Your task to perform on an android device: all mails in gmail Image 0: 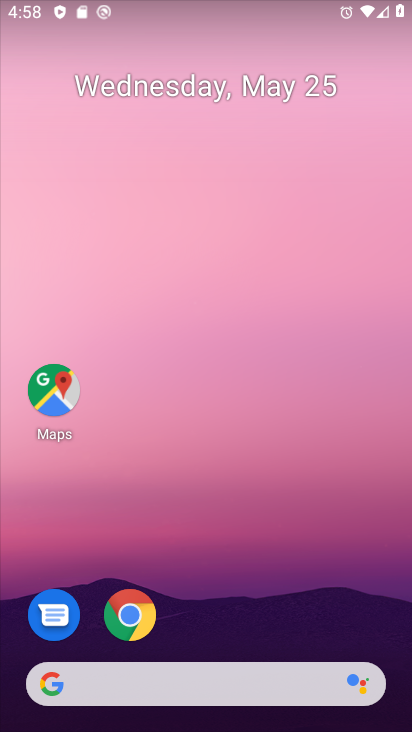
Step 0: drag from (313, 602) to (349, 0)
Your task to perform on an android device: all mails in gmail Image 1: 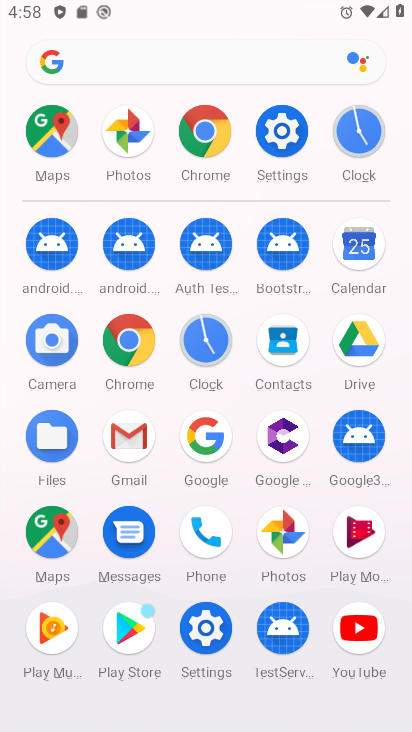
Step 1: click (143, 441)
Your task to perform on an android device: all mails in gmail Image 2: 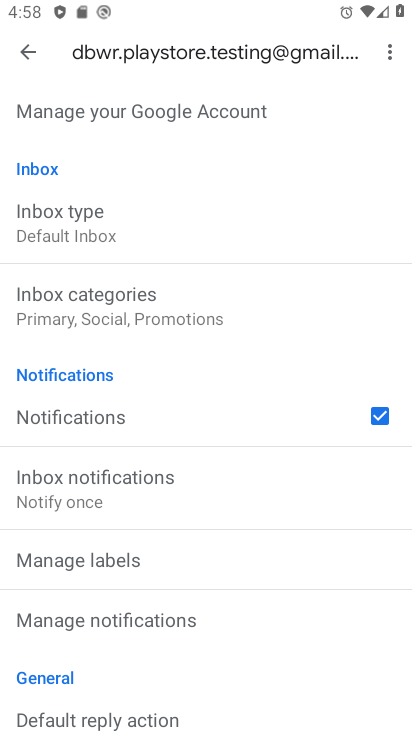
Step 2: click (39, 63)
Your task to perform on an android device: all mails in gmail Image 3: 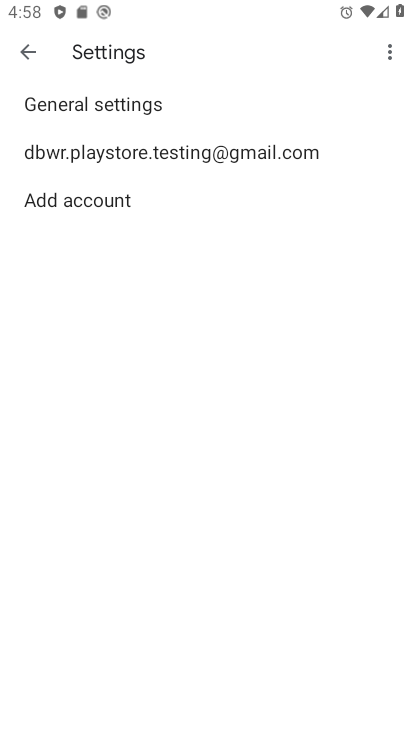
Step 3: click (39, 63)
Your task to perform on an android device: all mails in gmail Image 4: 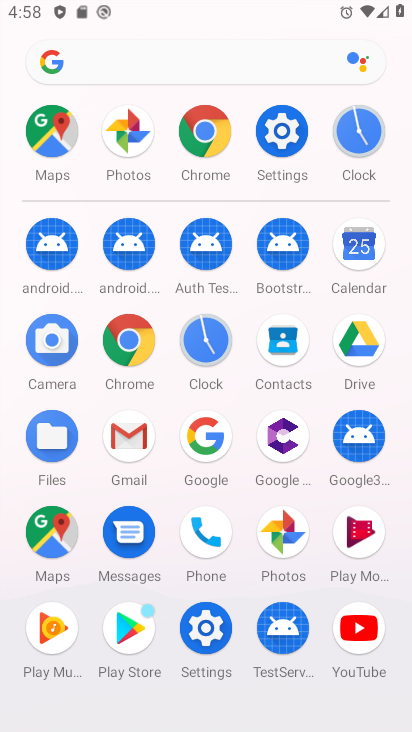
Step 4: click (143, 449)
Your task to perform on an android device: all mails in gmail Image 5: 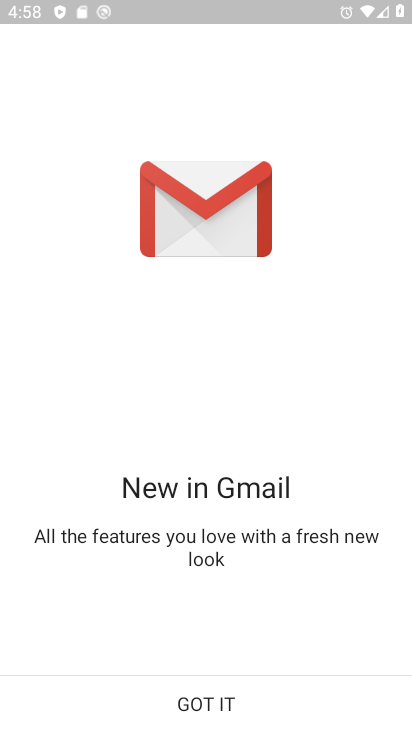
Step 5: click (203, 677)
Your task to perform on an android device: all mails in gmail Image 6: 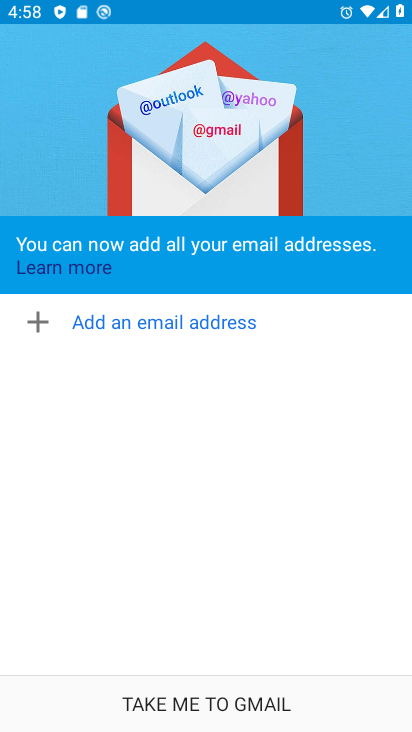
Step 6: click (203, 677)
Your task to perform on an android device: all mails in gmail Image 7: 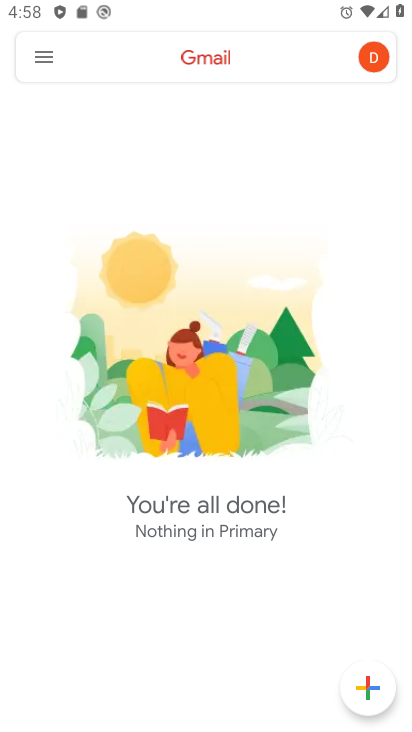
Step 7: click (29, 68)
Your task to perform on an android device: all mails in gmail Image 8: 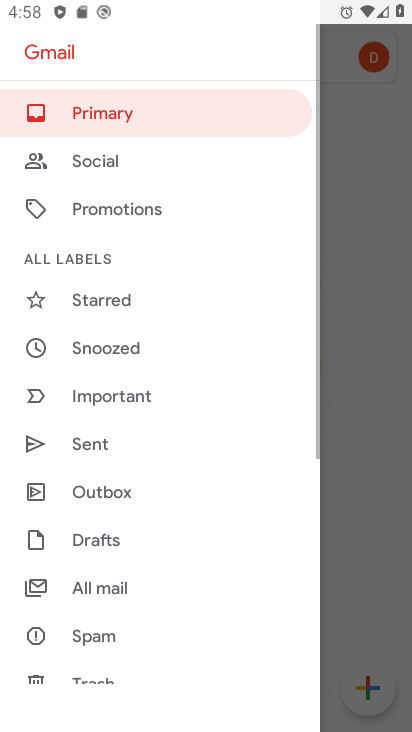
Step 8: drag from (165, 585) to (192, 124)
Your task to perform on an android device: all mails in gmail Image 9: 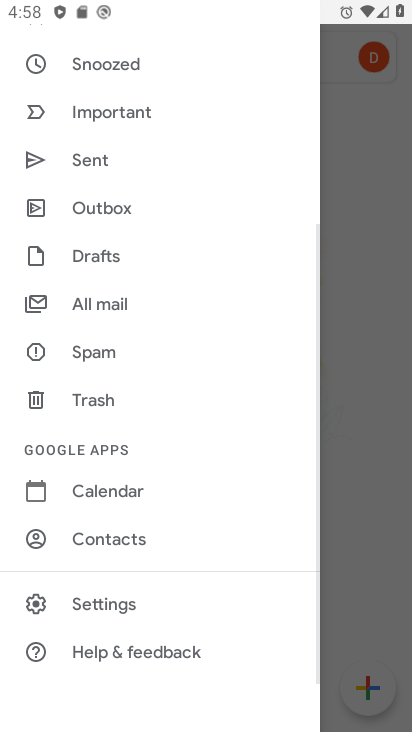
Step 9: click (118, 592)
Your task to perform on an android device: all mails in gmail Image 10: 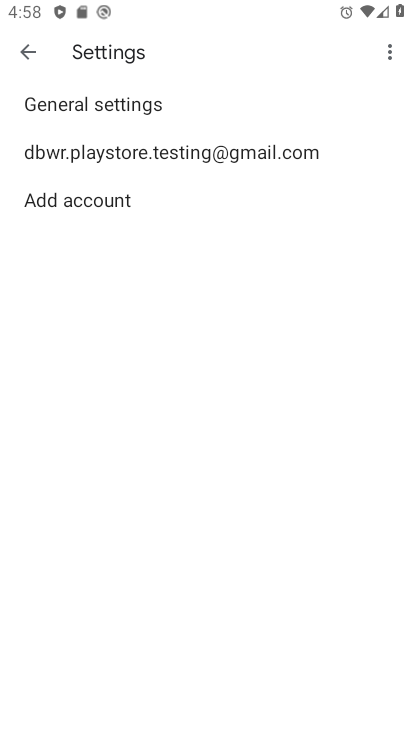
Step 10: click (175, 148)
Your task to perform on an android device: all mails in gmail Image 11: 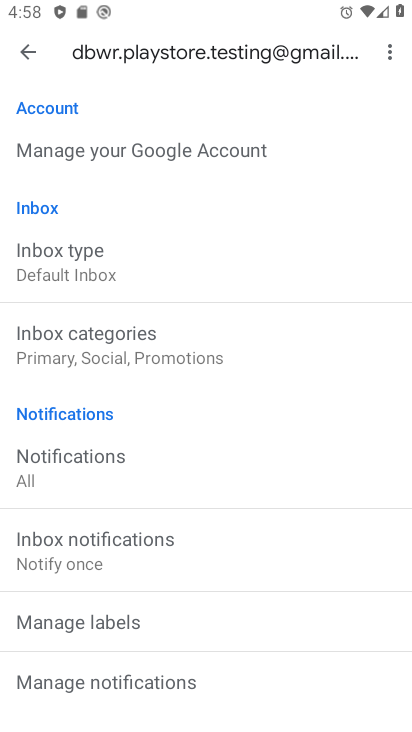
Step 11: click (34, 58)
Your task to perform on an android device: all mails in gmail Image 12: 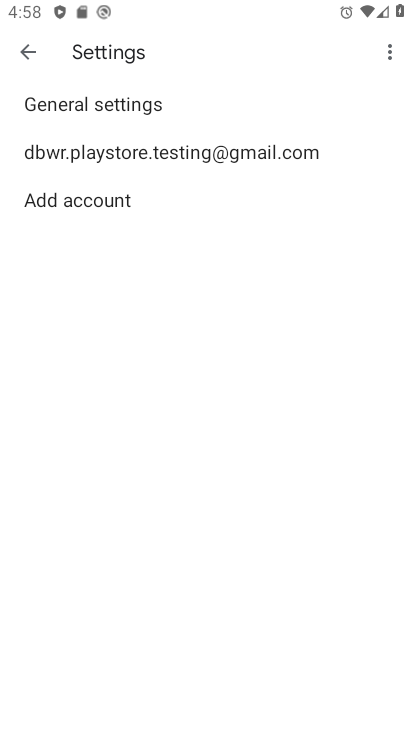
Step 12: click (34, 58)
Your task to perform on an android device: all mails in gmail Image 13: 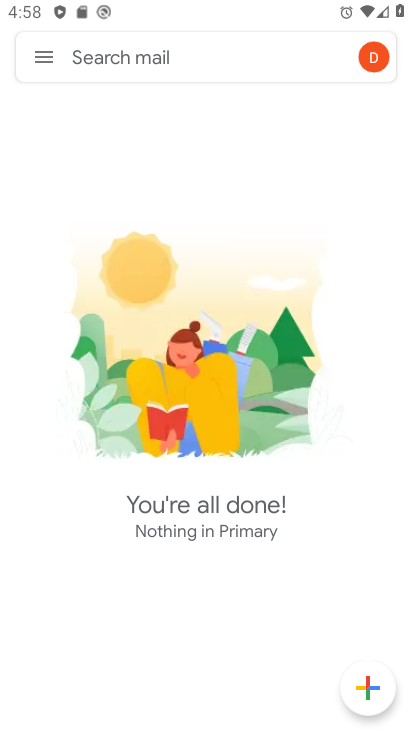
Step 13: click (45, 67)
Your task to perform on an android device: all mails in gmail Image 14: 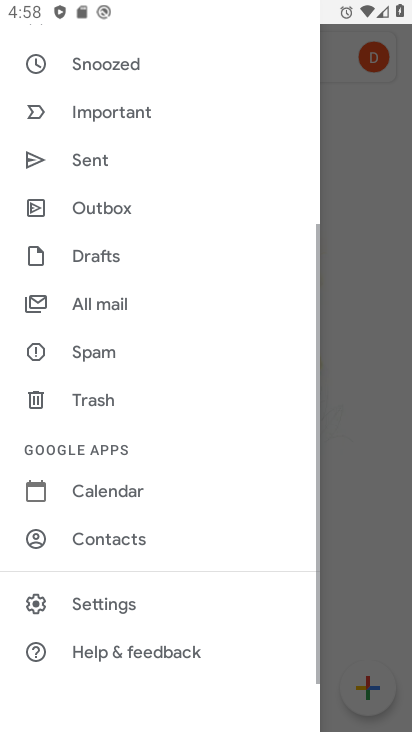
Step 14: drag from (134, 168) to (149, 635)
Your task to perform on an android device: all mails in gmail Image 15: 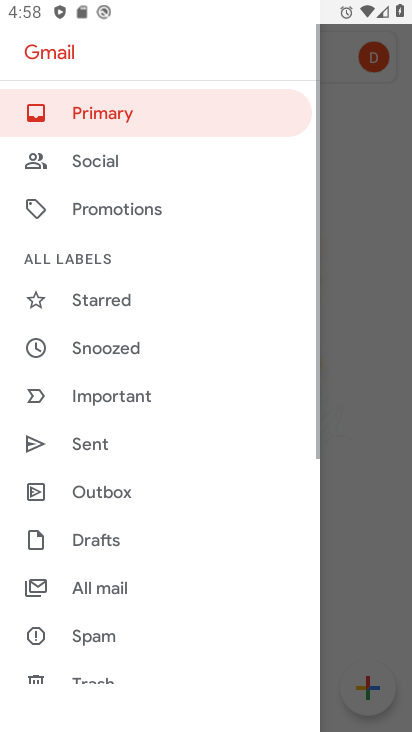
Step 15: click (122, 589)
Your task to perform on an android device: all mails in gmail Image 16: 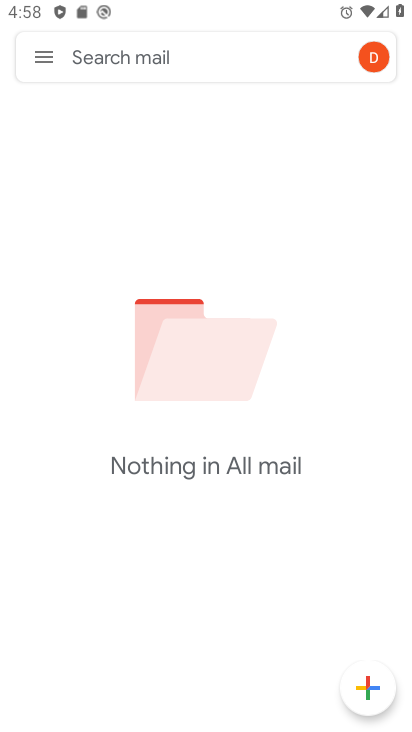
Step 16: task complete